Your task to perform on an android device: Check the weather Image 0: 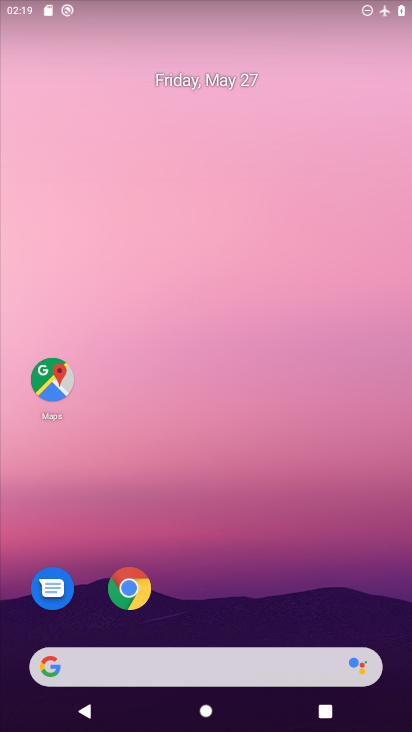
Step 0: click (173, 660)
Your task to perform on an android device: Check the weather Image 1: 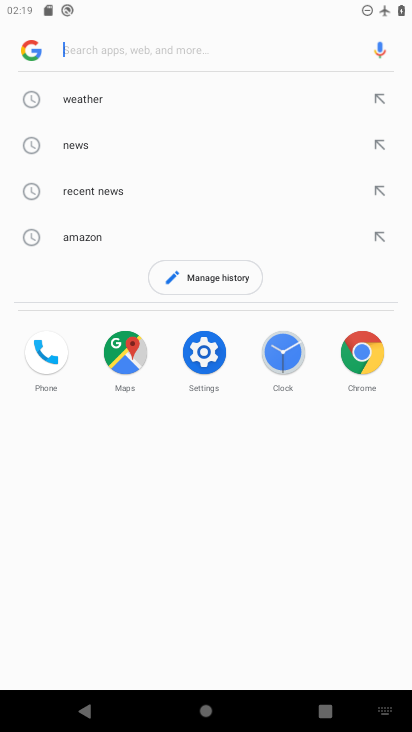
Step 1: click (84, 101)
Your task to perform on an android device: Check the weather Image 2: 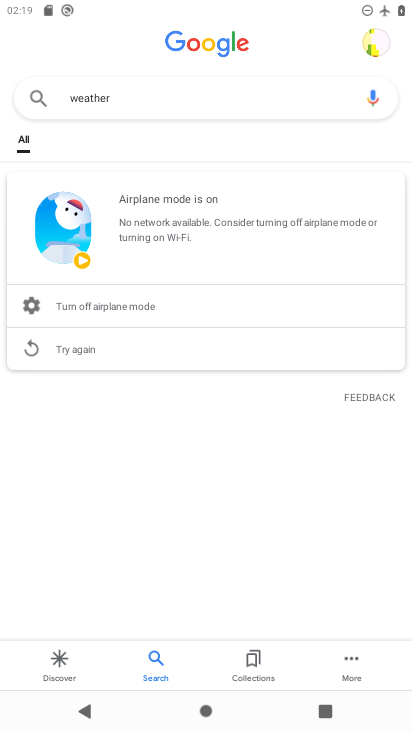
Step 2: click (24, 346)
Your task to perform on an android device: Check the weather Image 3: 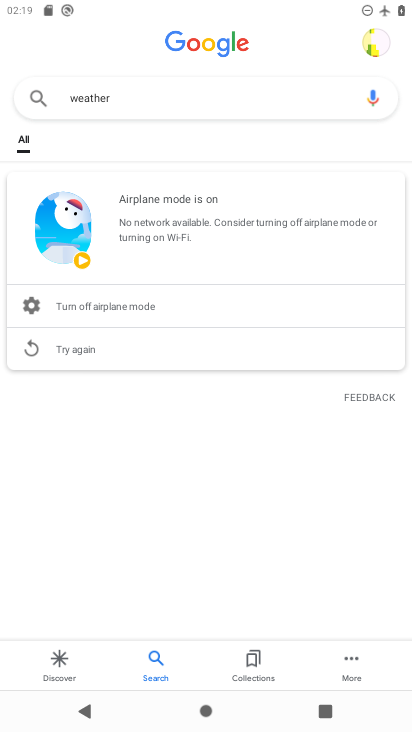
Step 3: click (24, 346)
Your task to perform on an android device: Check the weather Image 4: 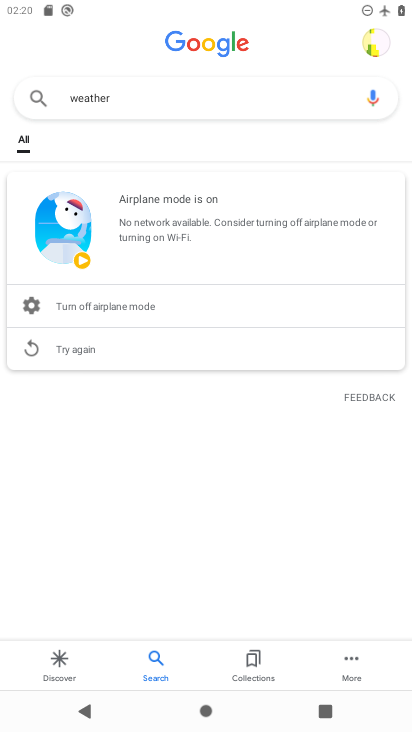
Step 4: press home button
Your task to perform on an android device: Check the weather Image 5: 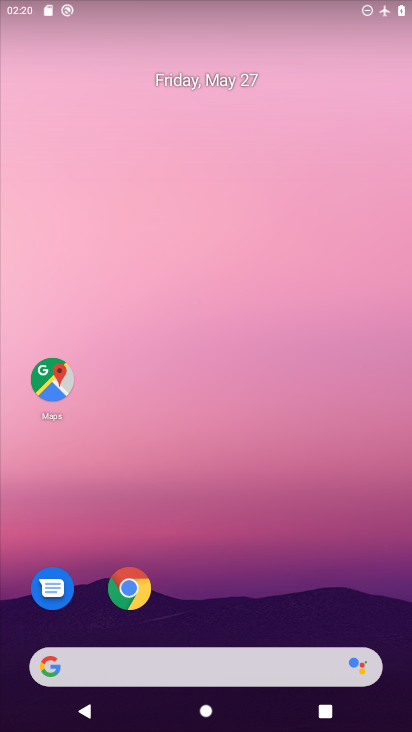
Step 5: drag from (369, 609) to (244, 79)
Your task to perform on an android device: Check the weather Image 6: 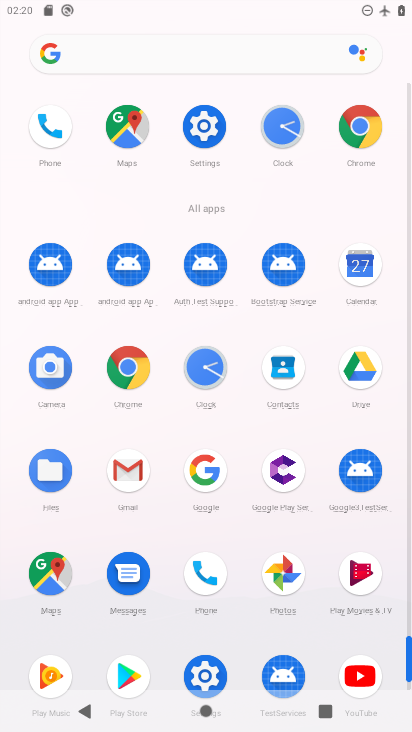
Step 6: click (206, 671)
Your task to perform on an android device: Check the weather Image 7: 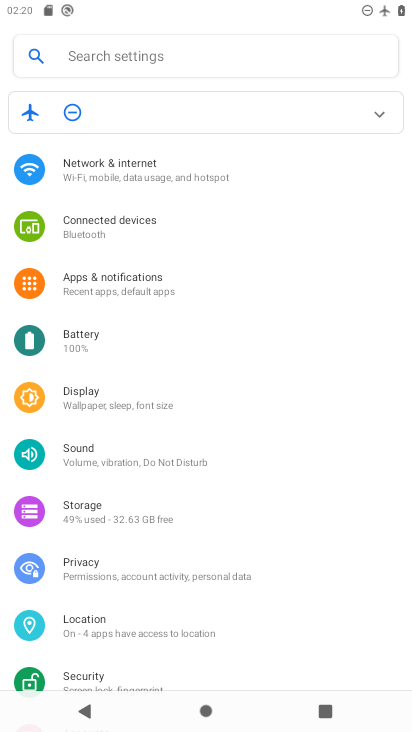
Step 7: click (115, 158)
Your task to perform on an android device: Check the weather Image 8: 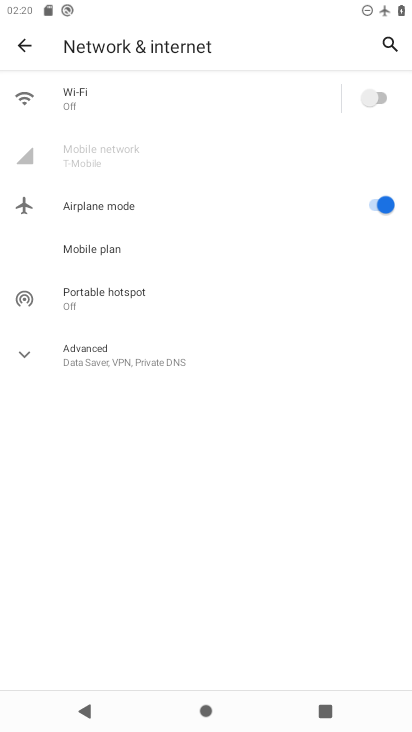
Step 8: click (384, 92)
Your task to perform on an android device: Check the weather Image 9: 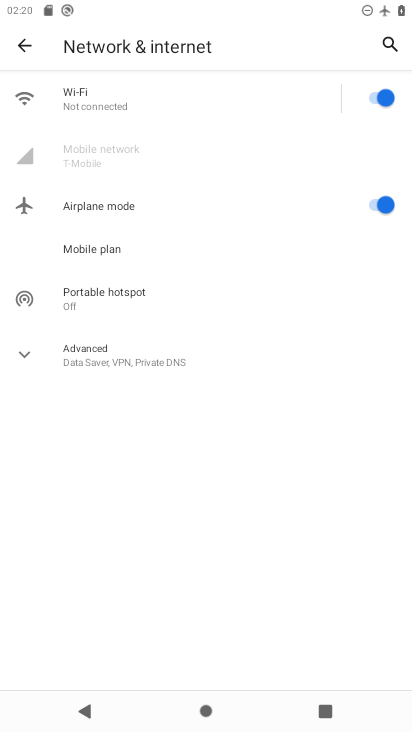
Step 9: press home button
Your task to perform on an android device: Check the weather Image 10: 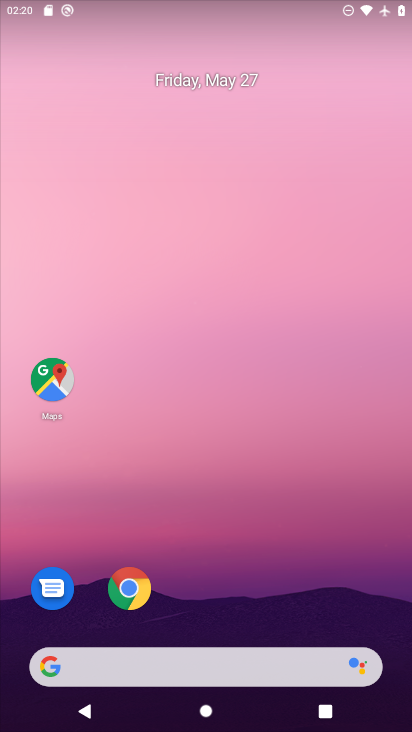
Step 10: click (187, 659)
Your task to perform on an android device: Check the weather Image 11: 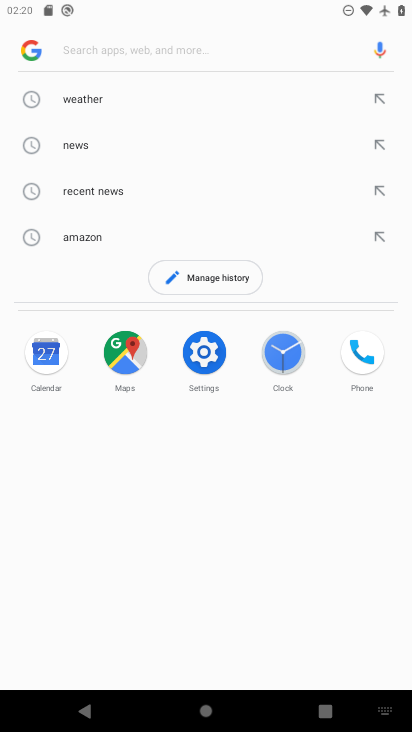
Step 11: click (85, 104)
Your task to perform on an android device: Check the weather Image 12: 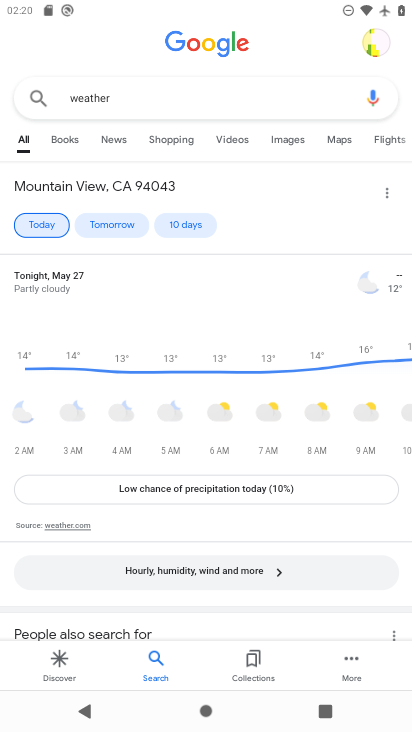
Step 12: task complete